Your task to perform on an android device: Open Reddit.com Image 0: 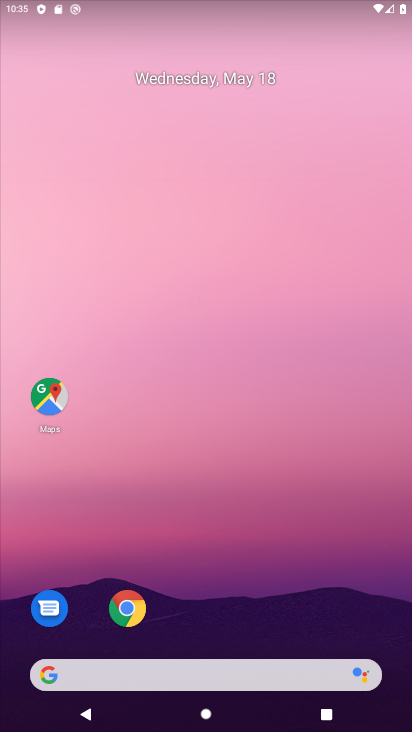
Step 0: press home button
Your task to perform on an android device: Open Reddit.com Image 1: 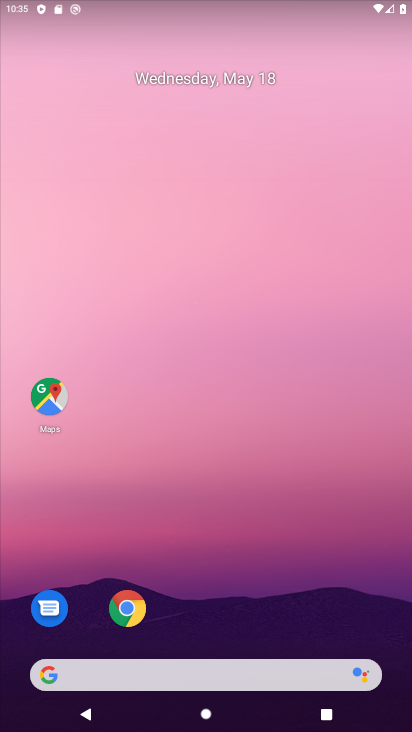
Step 1: click (123, 600)
Your task to perform on an android device: Open Reddit.com Image 2: 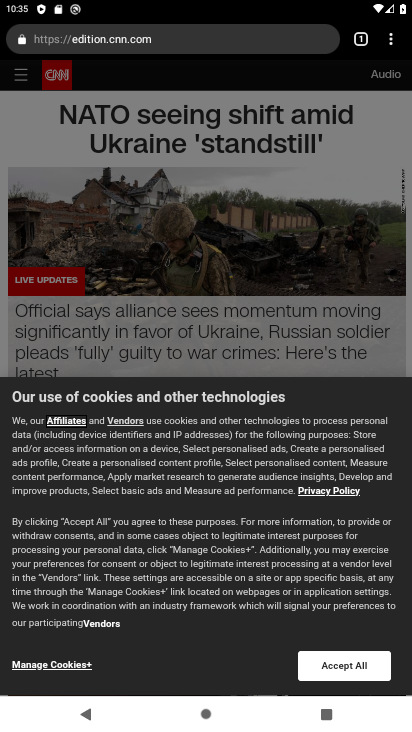
Step 2: click (146, 35)
Your task to perform on an android device: Open Reddit.com Image 3: 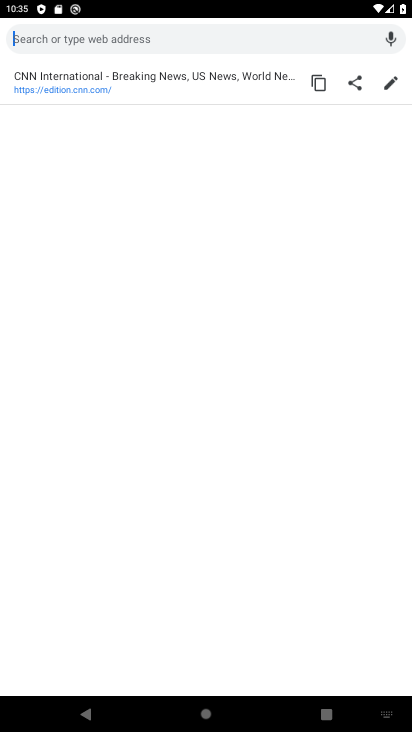
Step 3: click (146, 35)
Your task to perform on an android device: Open Reddit.com Image 4: 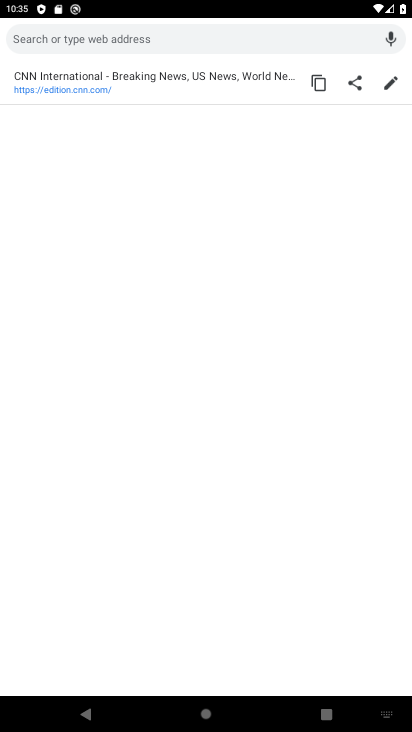
Step 4: type " Reddit.com"
Your task to perform on an android device: Open Reddit.com Image 5: 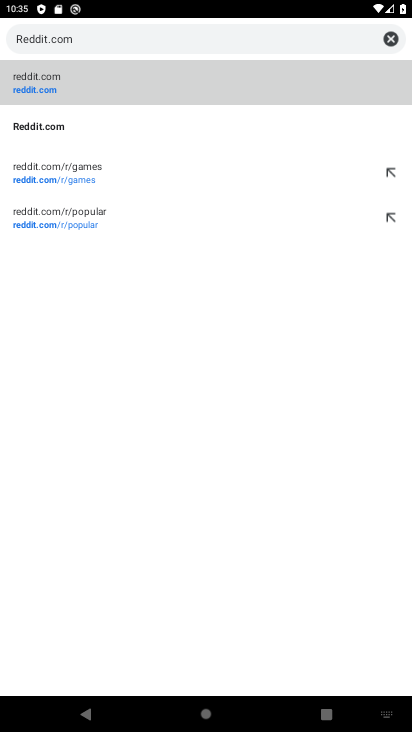
Step 5: click (254, 75)
Your task to perform on an android device: Open Reddit.com Image 6: 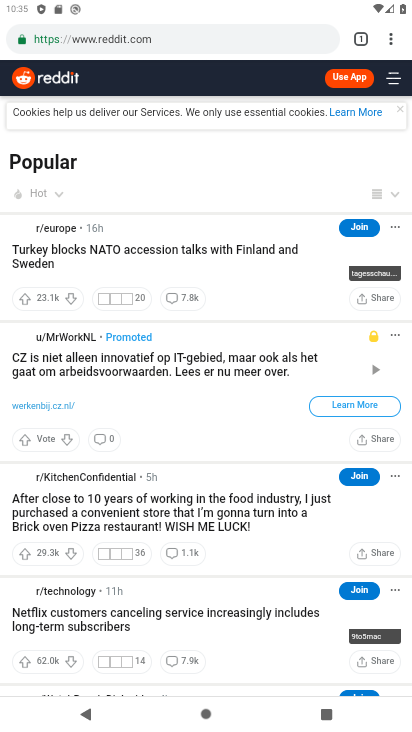
Step 6: task complete